Your task to perform on an android device: change keyboard looks Image 0: 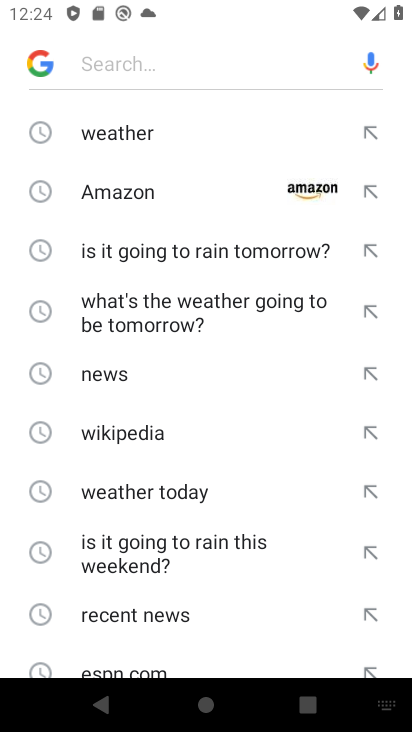
Step 0: drag from (215, 555) to (400, 56)
Your task to perform on an android device: change keyboard looks Image 1: 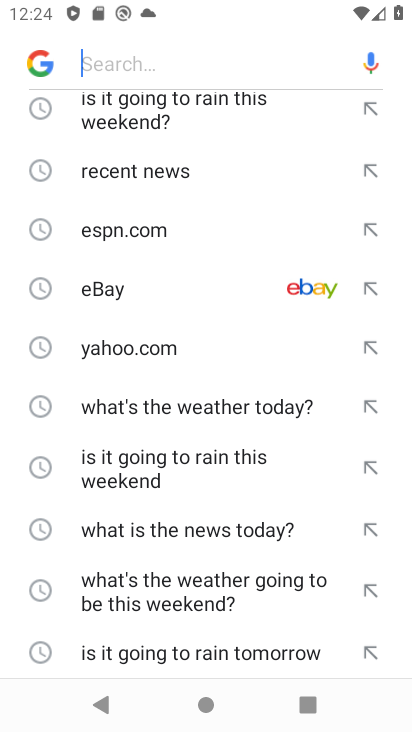
Step 1: press back button
Your task to perform on an android device: change keyboard looks Image 2: 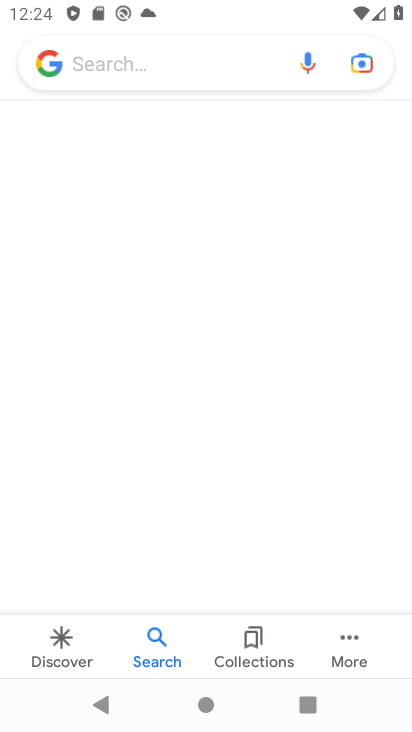
Step 2: click (400, 56)
Your task to perform on an android device: change keyboard looks Image 3: 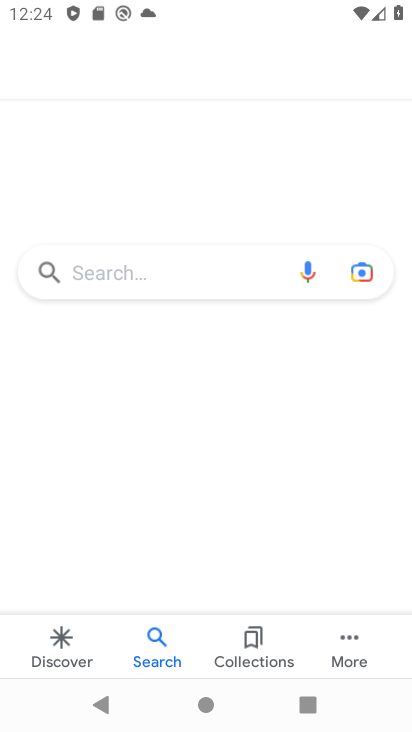
Step 3: press home button
Your task to perform on an android device: change keyboard looks Image 4: 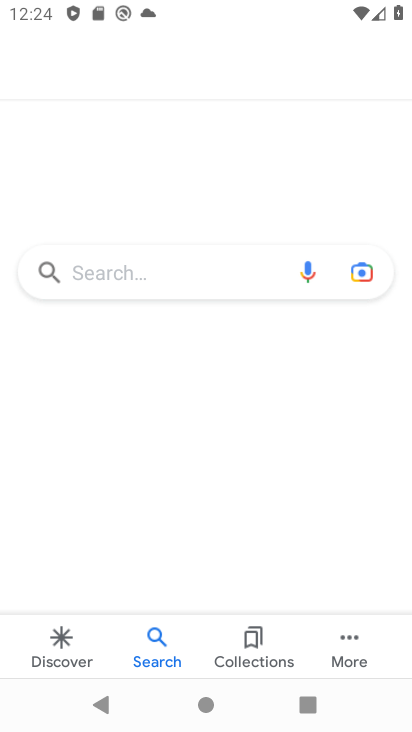
Step 4: click (403, 386)
Your task to perform on an android device: change keyboard looks Image 5: 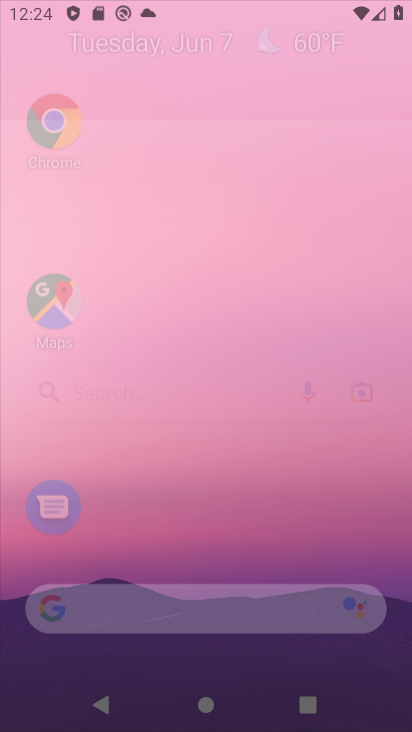
Step 5: drag from (227, 535) to (406, 408)
Your task to perform on an android device: change keyboard looks Image 6: 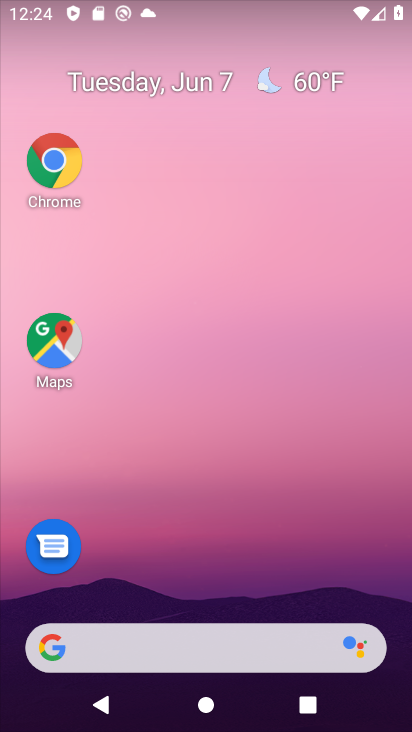
Step 6: drag from (184, 566) to (263, 255)
Your task to perform on an android device: change keyboard looks Image 7: 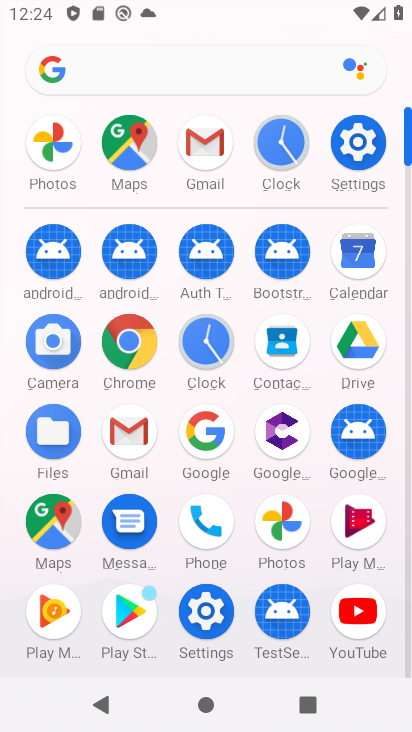
Step 7: click (362, 148)
Your task to perform on an android device: change keyboard looks Image 8: 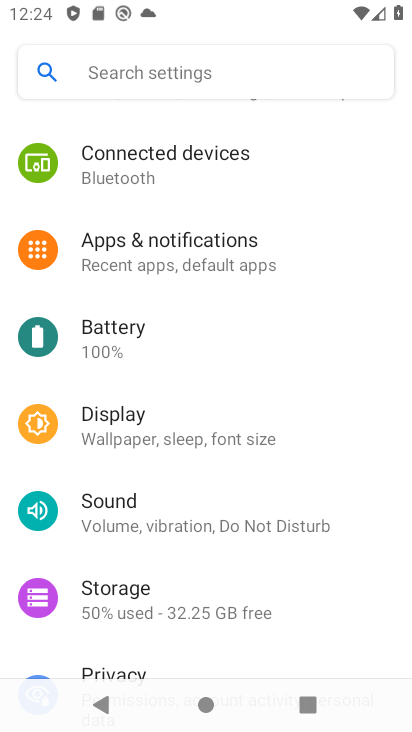
Step 8: drag from (149, 579) to (342, 1)
Your task to perform on an android device: change keyboard looks Image 9: 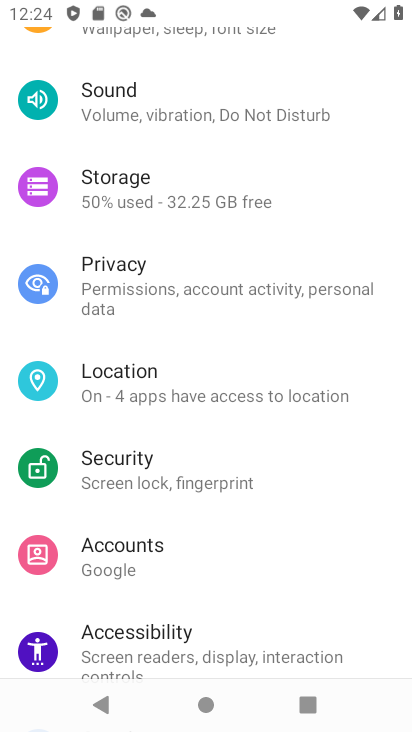
Step 9: drag from (161, 574) to (390, 65)
Your task to perform on an android device: change keyboard looks Image 10: 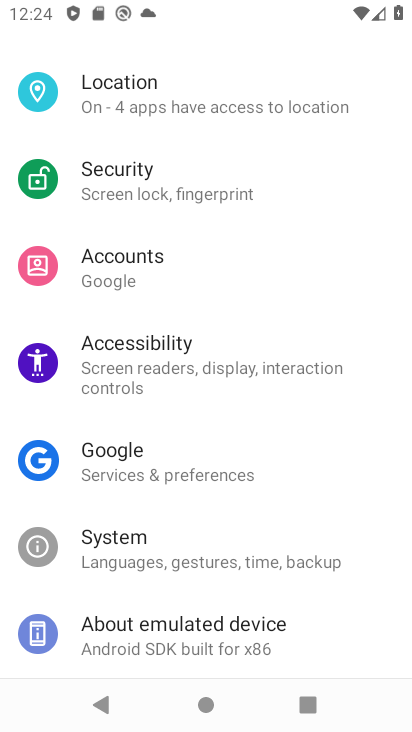
Step 10: drag from (179, 574) to (293, 162)
Your task to perform on an android device: change keyboard looks Image 11: 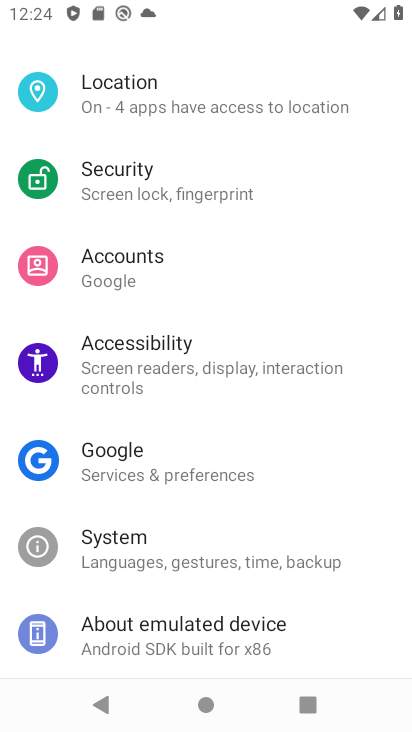
Step 11: drag from (157, 561) to (342, 11)
Your task to perform on an android device: change keyboard looks Image 12: 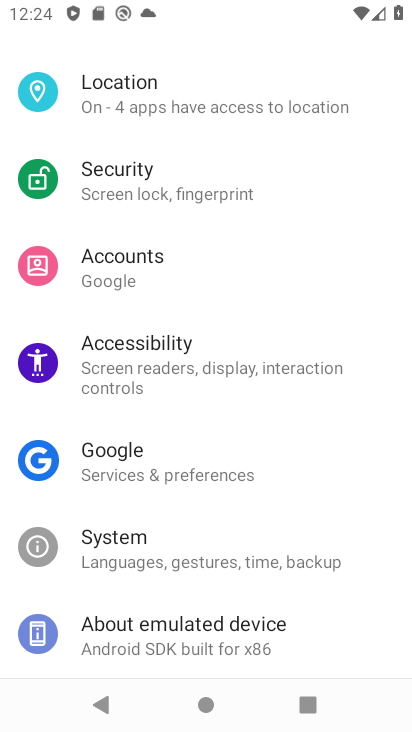
Step 12: drag from (274, 137) to (351, 644)
Your task to perform on an android device: change keyboard looks Image 13: 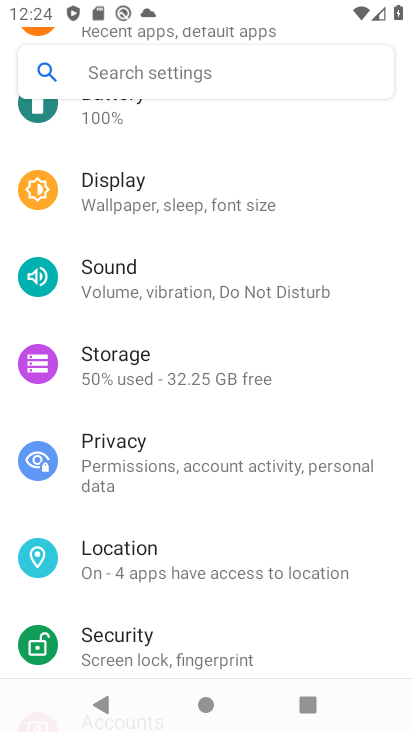
Step 13: drag from (202, 435) to (274, 165)
Your task to perform on an android device: change keyboard looks Image 14: 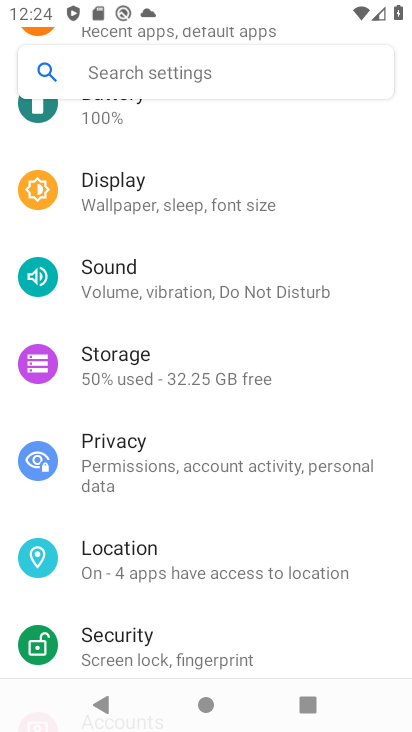
Step 14: drag from (183, 537) to (336, 73)
Your task to perform on an android device: change keyboard looks Image 15: 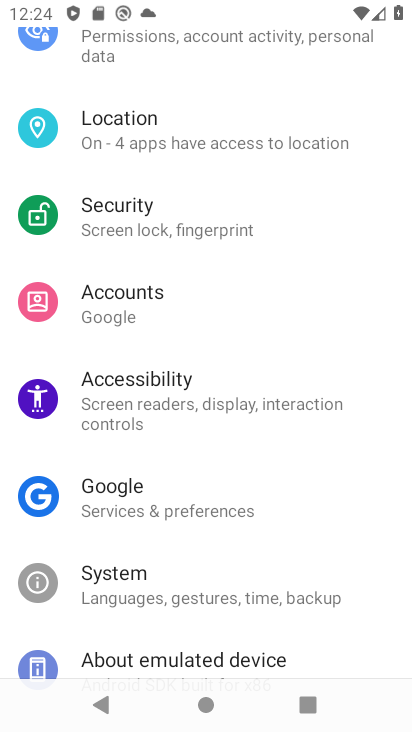
Step 15: click (137, 594)
Your task to perform on an android device: change keyboard looks Image 16: 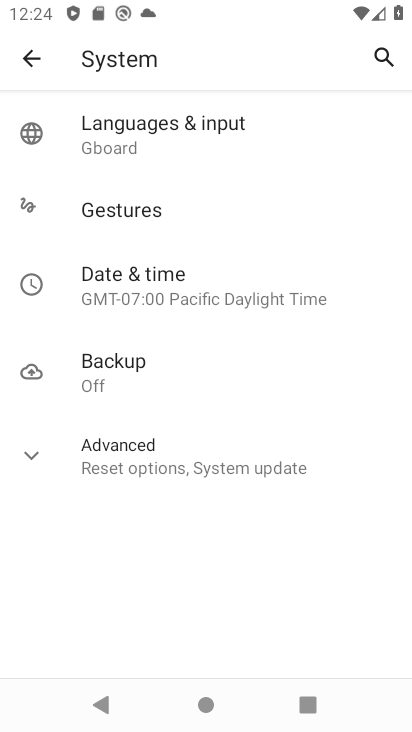
Step 16: click (210, 145)
Your task to perform on an android device: change keyboard looks Image 17: 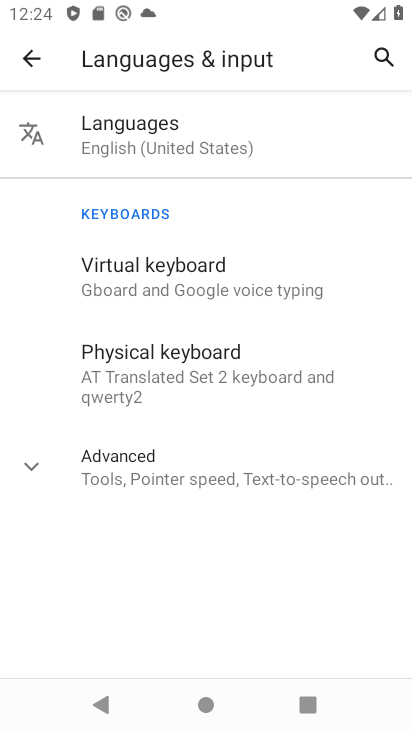
Step 17: click (171, 292)
Your task to perform on an android device: change keyboard looks Image 18: 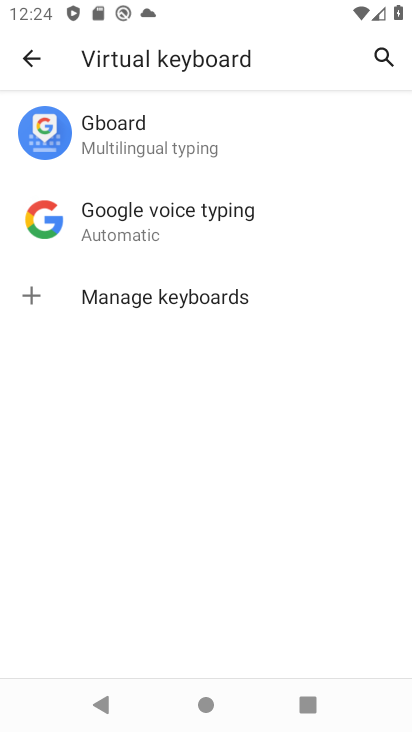
Step 18: click (162, 145)
Your task to perform on an android device: change keyboard looks Image 19: 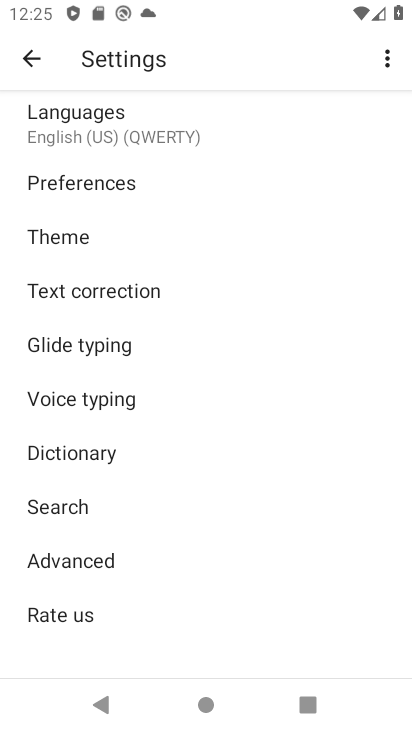
Step 19: click (102, 248)
Your task to perform on an android device: change keyboard looks Image 20: 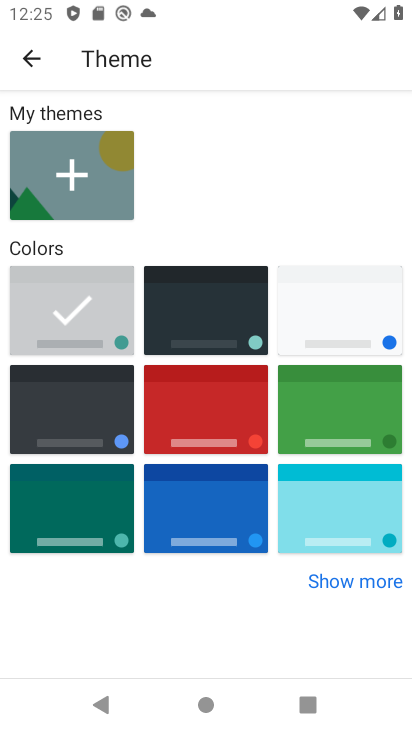
Step 20: click (183, 326)
Your task to perform on an android device: change keyboard looks Image 21: 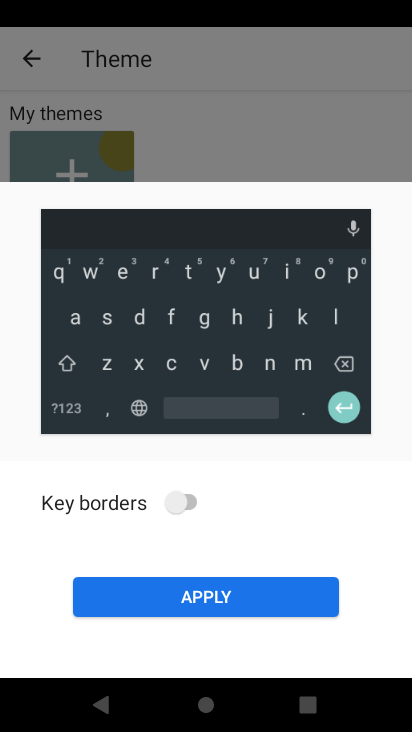
Step 21: click (198, 605)
Your task to perform on an android device: change keyboard looks Image 22: 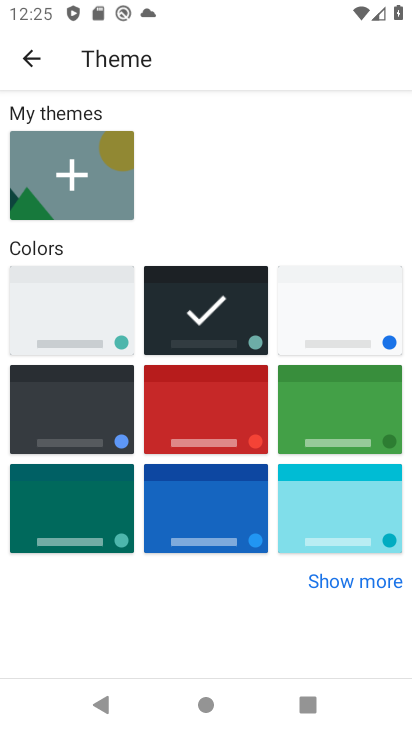
Step 22: task complete